Your task to perform on an android device: turn on location history Image 0: 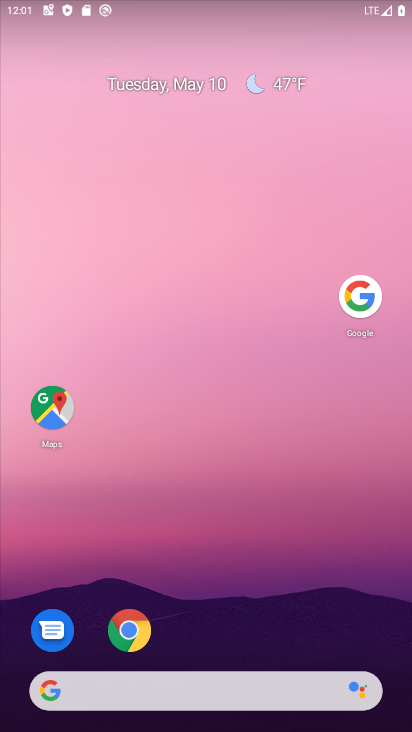
Step 0: drag from (182, 688) to (317, 50)
Your task to perform on an android device: turn on location history Image 1: 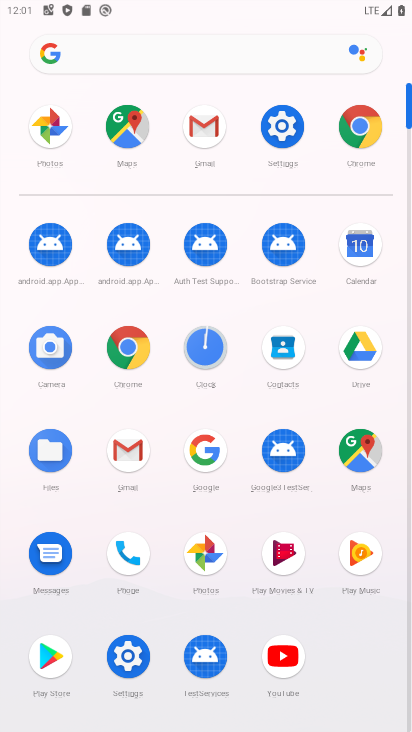
Step 1: click (131, 137)
Your task to perform on an android device: turn on location history Image 2: 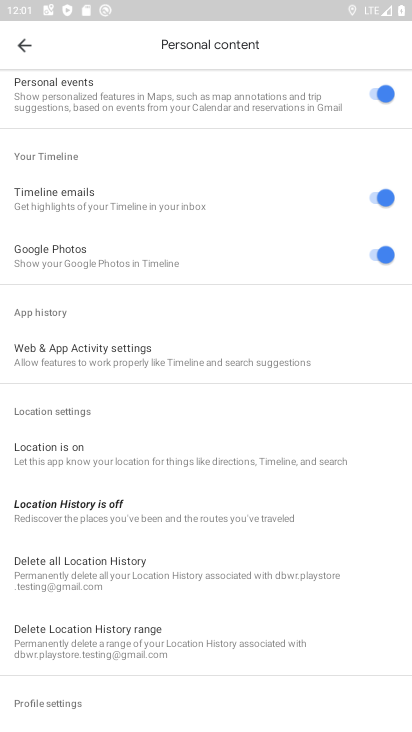
Step 2: click (106, 508)
Your task to perform on an android device: turn on location history Image 3: 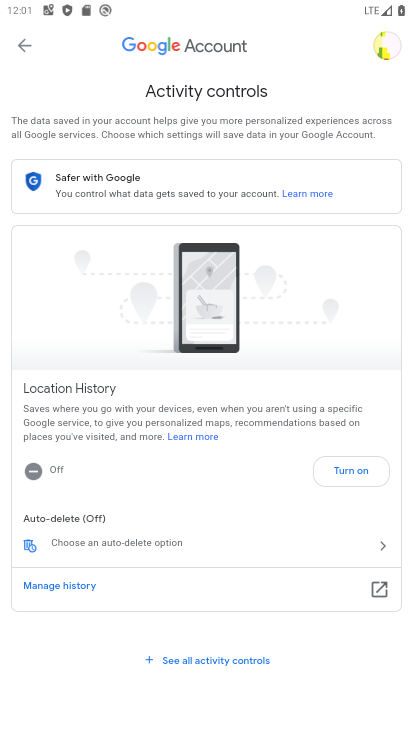
Step 3: click (349, 470)
Your task to perform on an android device: turn on location history Image 4: 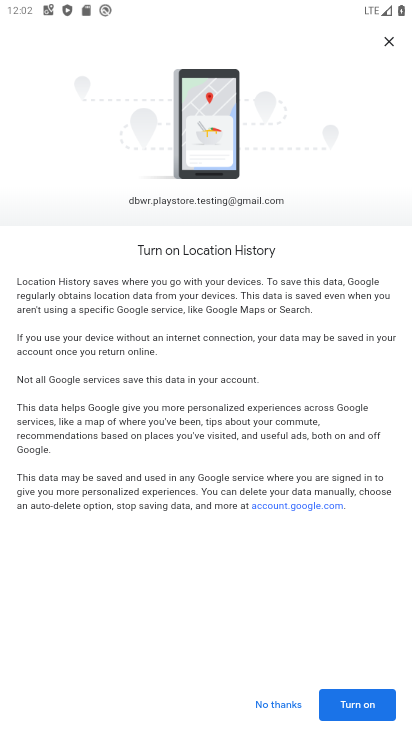
Step 4: click (351, 711)
Your task to perform on an android device: turn on location history Image 5: 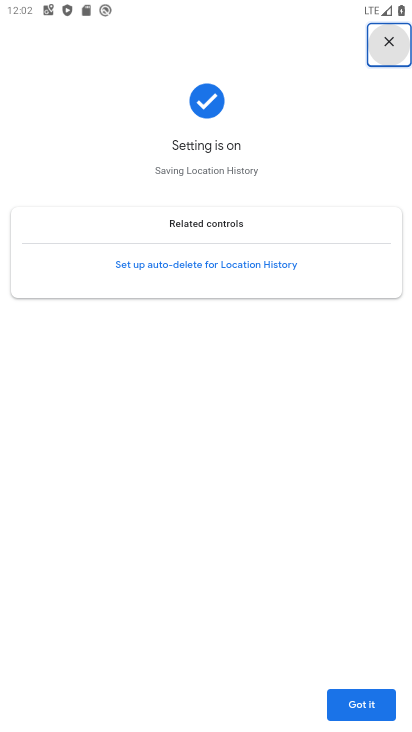
Step 5: click (365, 709)
Your task to perform on an android device: turn on location history Image 6: 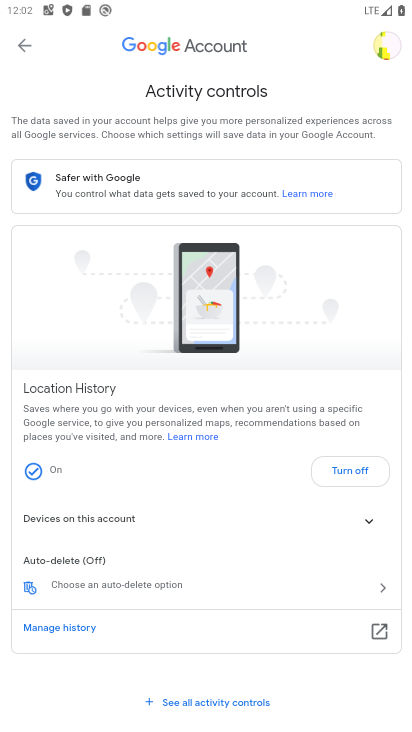
Step 6: task complete